Your task to perform on an android device: turn pop-ups on in chrome Image 0: 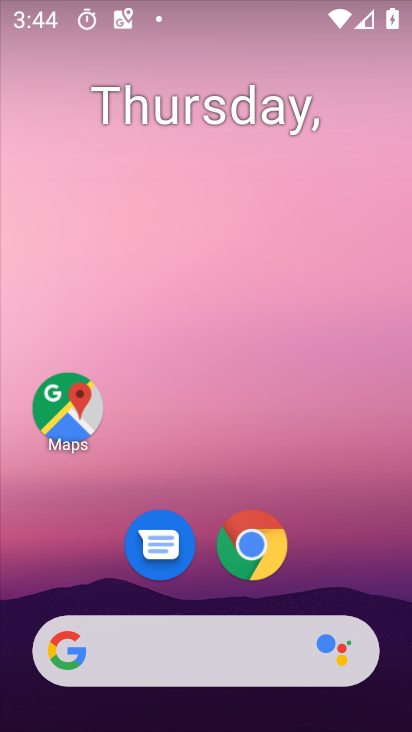
Step 0: click (253, 548)
Your task to perform on an android device: turn pop-ups on in chrome Image 1: 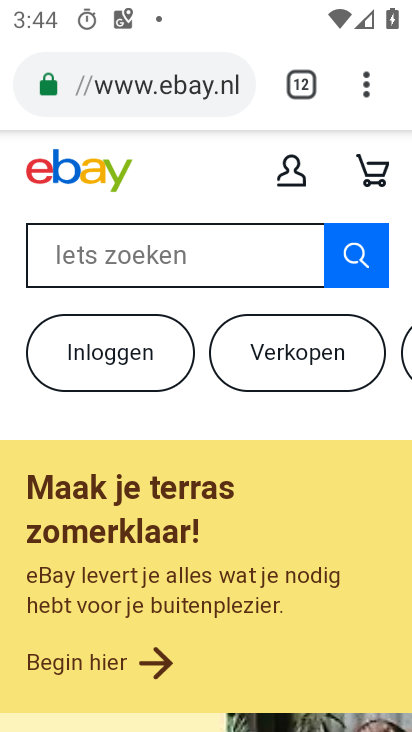
Step 1: click (366, 93)
Your task to perform on an android device: turn pop-ups on in chrome Image 2: 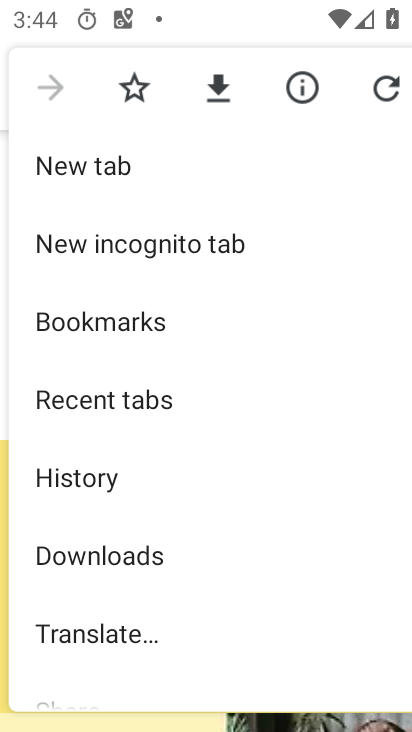
Step 2: drag from (122, 669) to (128, 257)
Your task to perform on an android device: turn pop-ups on in chrome Image 3: 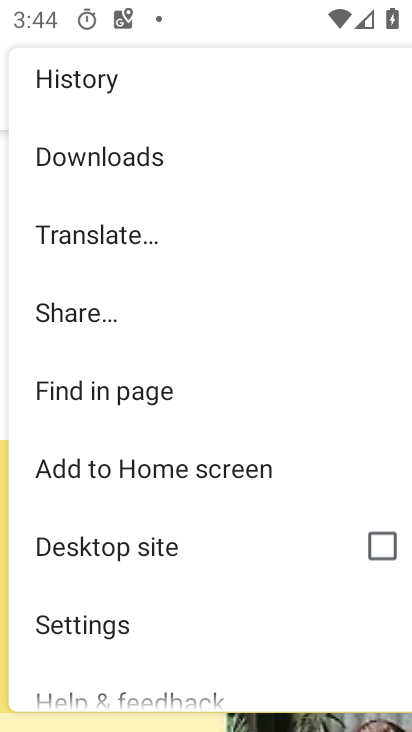
Step 3: click (100, 626)
Your task to perform on an android device: turn pop-ups on in chrome Image 4: 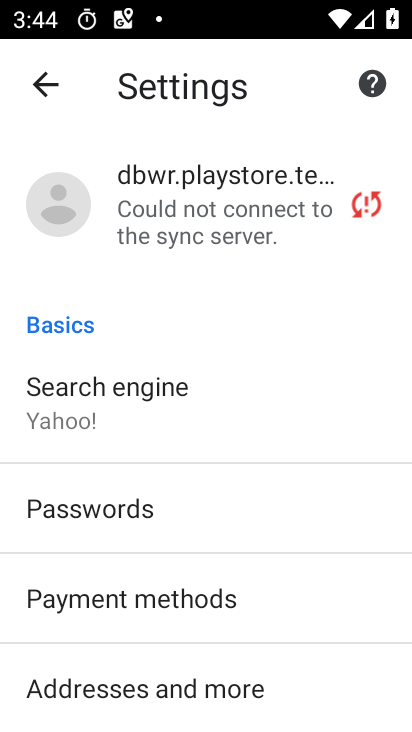
Step 4: drag from (99, 620) to (108, 239)
Your task to perform on an android device: turn pop-ups on in chrome Image 5: 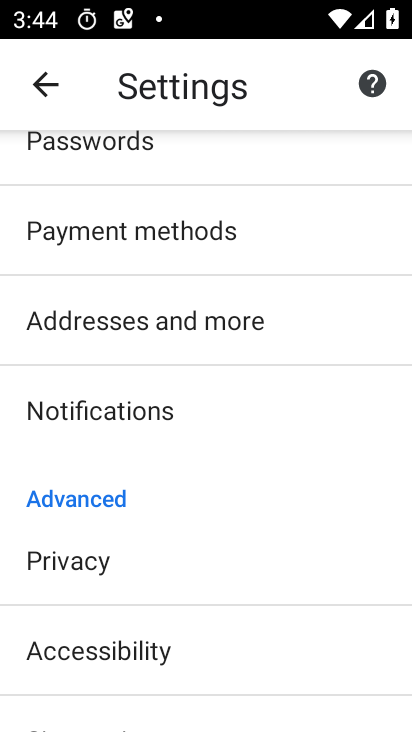
Step 5: drag from (130, 681) to (133, 290)
Your task to perform on an android device: turn pop-ups on in chrome Image 6: 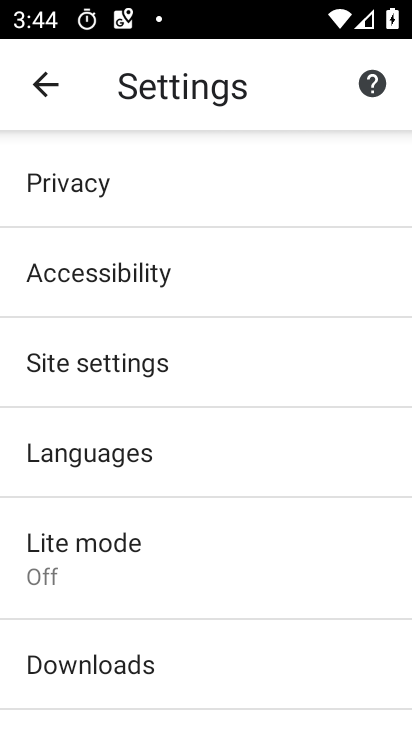
Step 6: click (115, 361)
Your task to perform on an android device: turn pop-ups on in chrome Image 7: 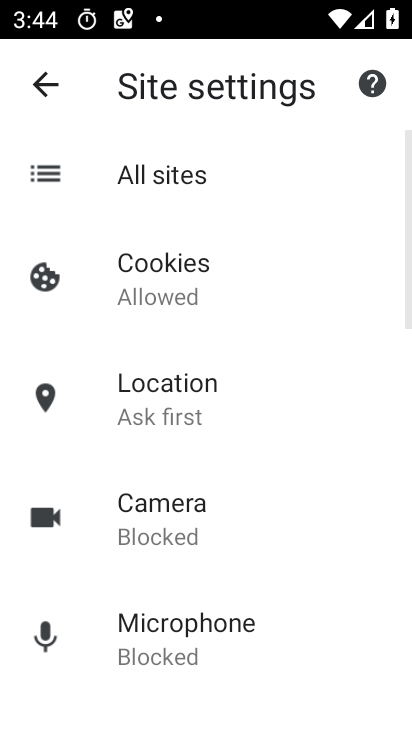
Step 7: drag from (174, 680) to (177, 235)
Your task to perform on an android device: turn pop-ups on in chrome Image 8: 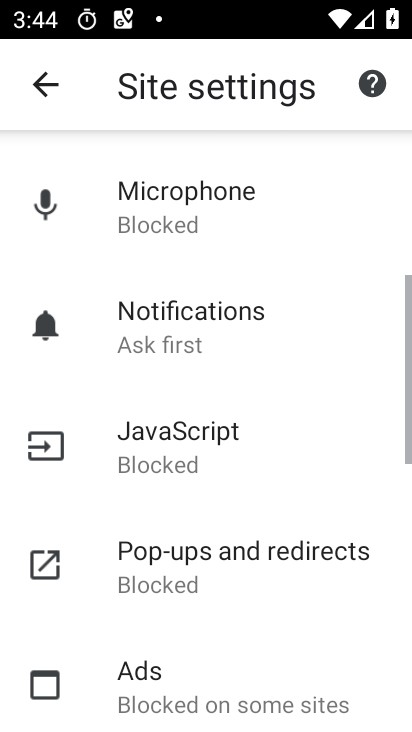
Step 8: drag from (206, 662) to (208, 370)
Your task to perform on an android device: turn pop-ups on in chrome Image 9: 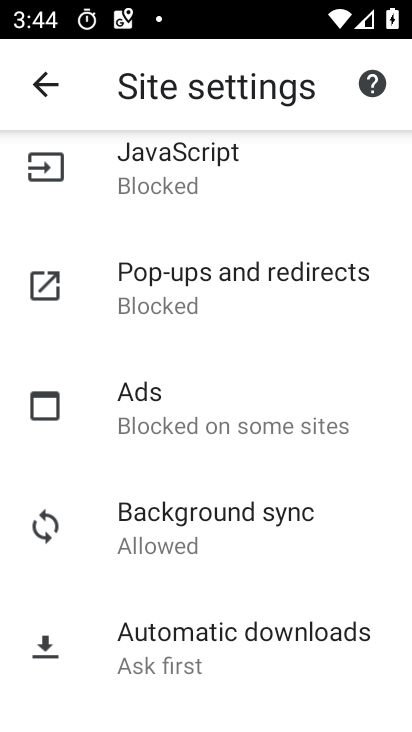
Step 9: click (179, 283)
Your task to perform on an android device: turn pop-ups on in chrome Image 10: 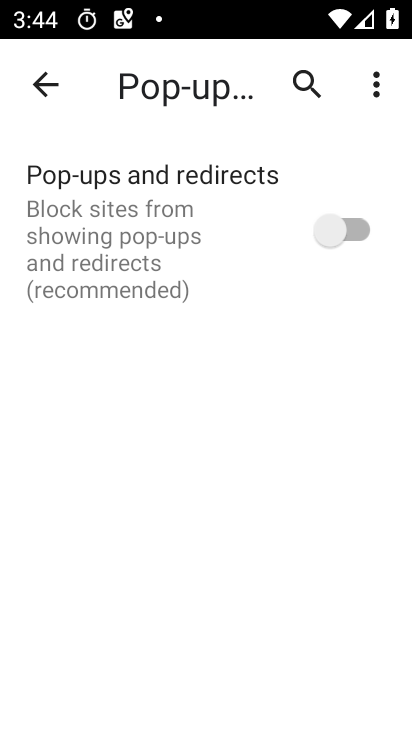
Step 10: click (360, 224)
Your task to perform on an android device: turn pop-ups on in chrome Image 11: 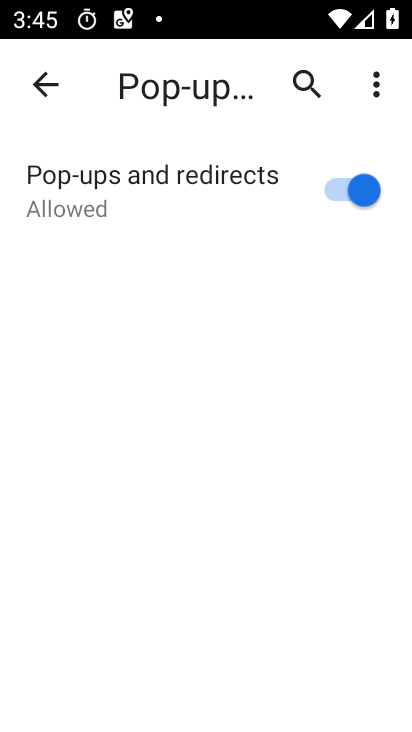
Step 11: task complete